Your task to perform on an android device: Open Reddit.com Image 0: 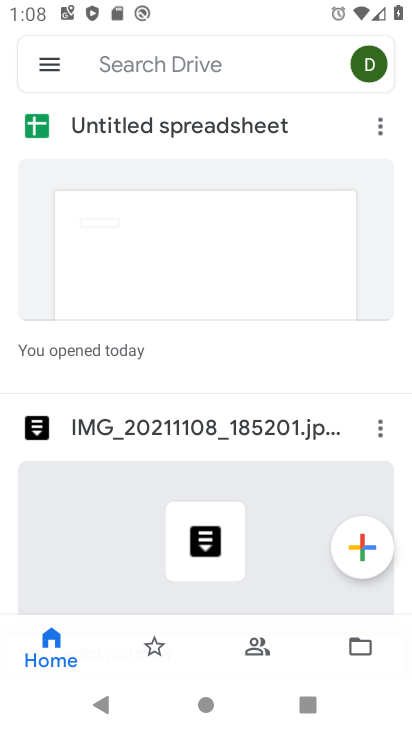
Step 0: press home button
Your task to perform on an android device: Open Reddit.com Image 1: 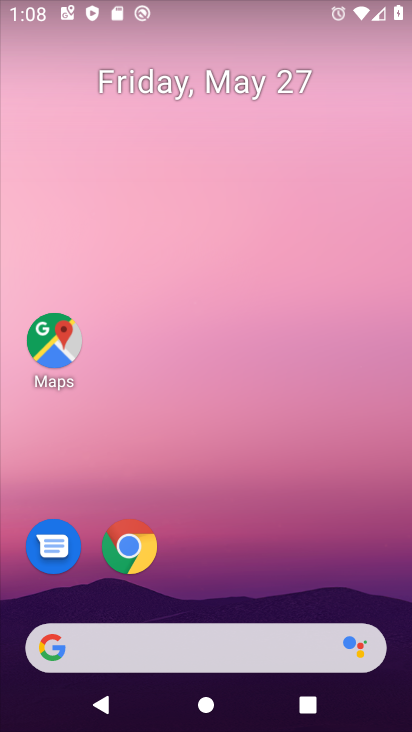
Step 1: drag from (269, 675) to (235, 168)
Your task to perform on an android device: Open Reddit.com Image 2: 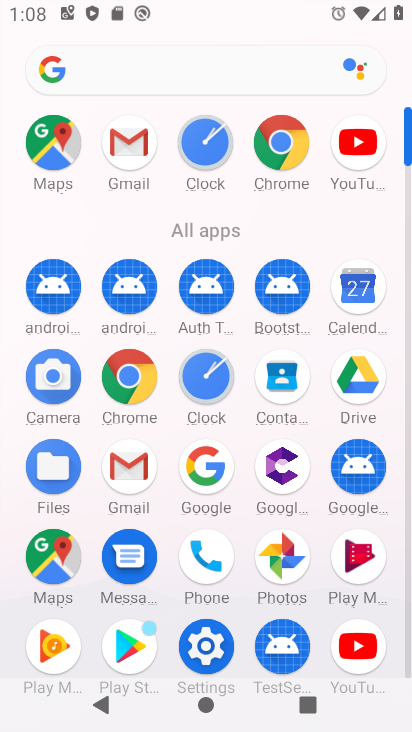
Step 2: click (270, 151)
Your task to perform on an android device: Open Reddit.com Image 3: 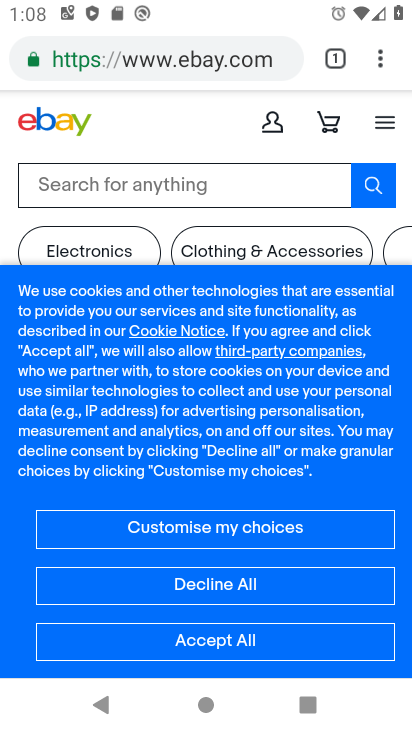
Step 3: click (167, 68)
Your task to perform on an android device: Open Reddit.com Image 4: 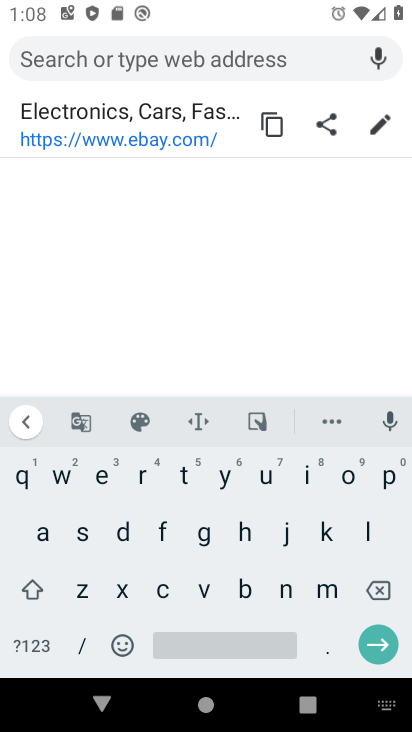
Step 4: click (135, 478)
Your task to perform on an android device: Open Reddit.com Image 5: 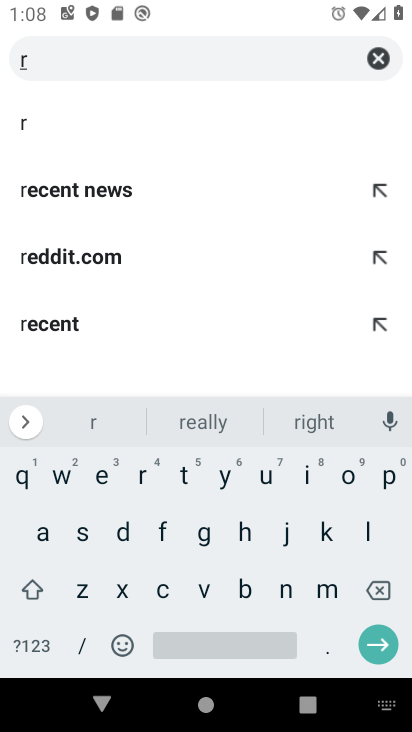
Step 5: click (118, 263)
Your task to perform on an android device: Open Reddit.com Image 6: 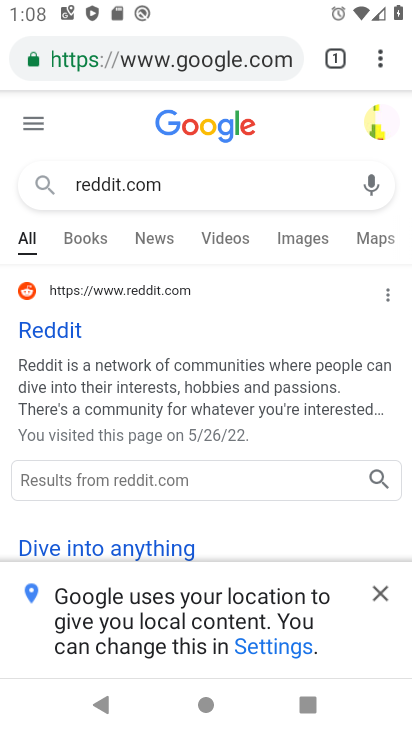
Step 6: click (63, 327)
Your task to perform on an android device: Open Reddit.com Image 7: 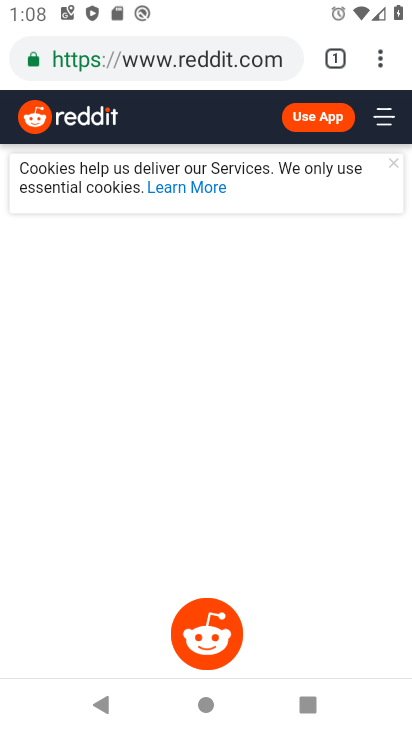
Step 7: task complete